Your task to perform on an android device: delete a single message in the gmail app Image 0: 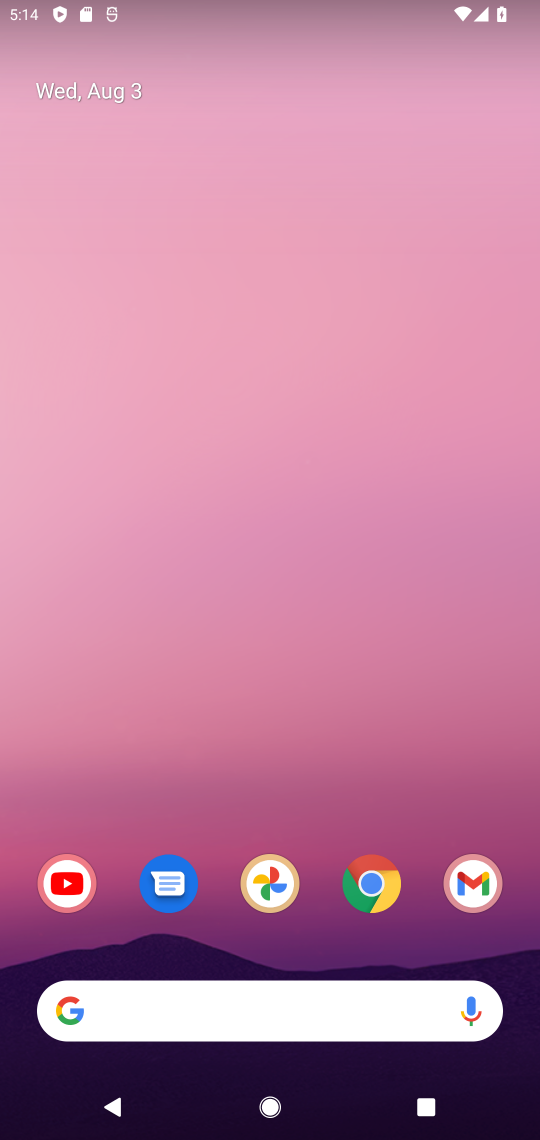
Step 0: drag from (236, 982) to (426, 184)
Your task to perform on an android device: delete a single message in the gmail app Image 1: 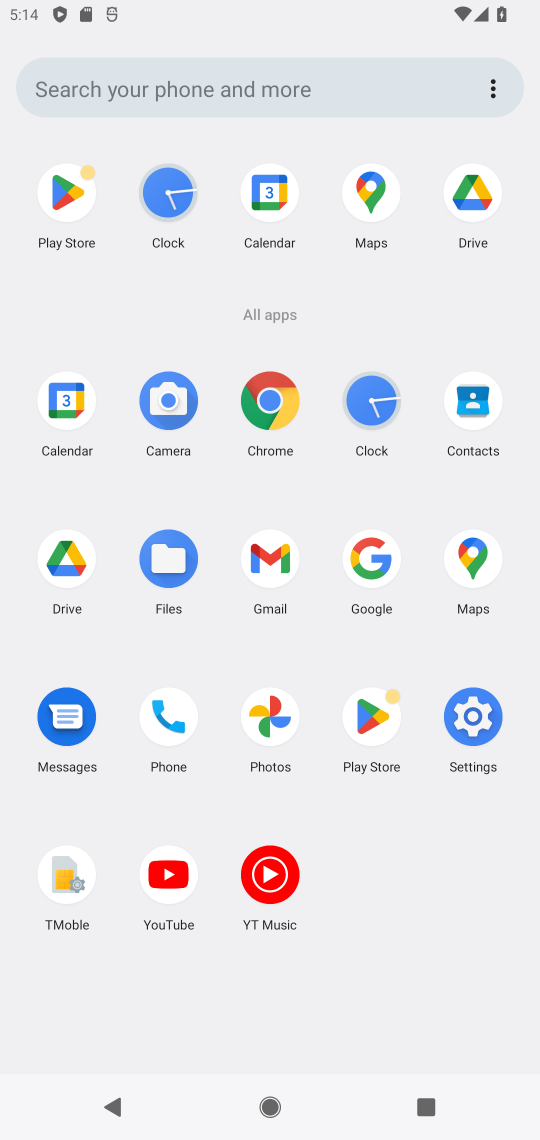
Step 1: click (267, 567)
Your task to perform on an android device: delete a single message in the gmail app Image 2: 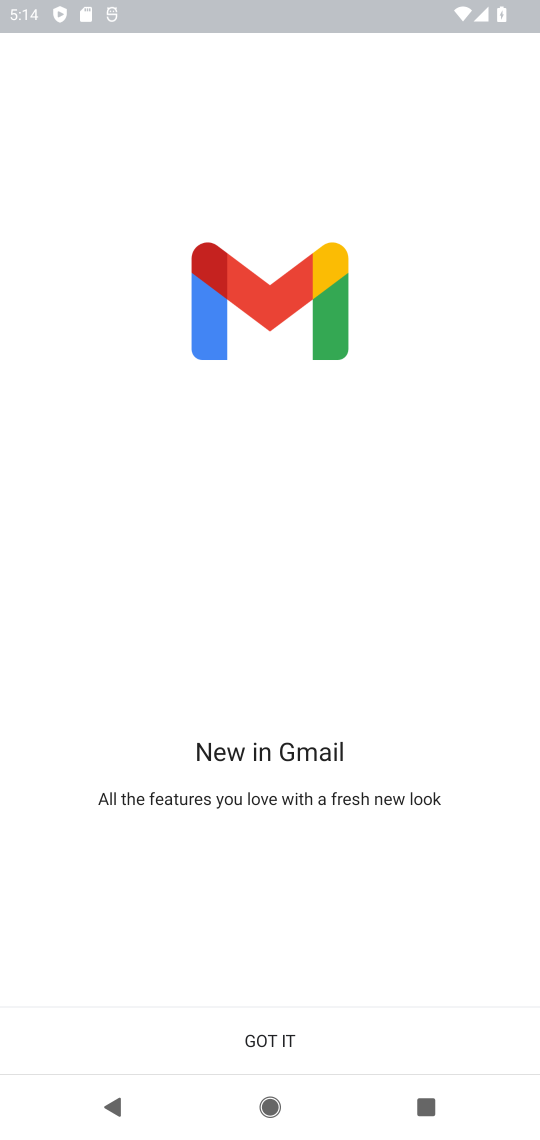
Step 2: click (259, 1045)
Your task to perform on an android device: delete a single message in the gmail app Image 3: 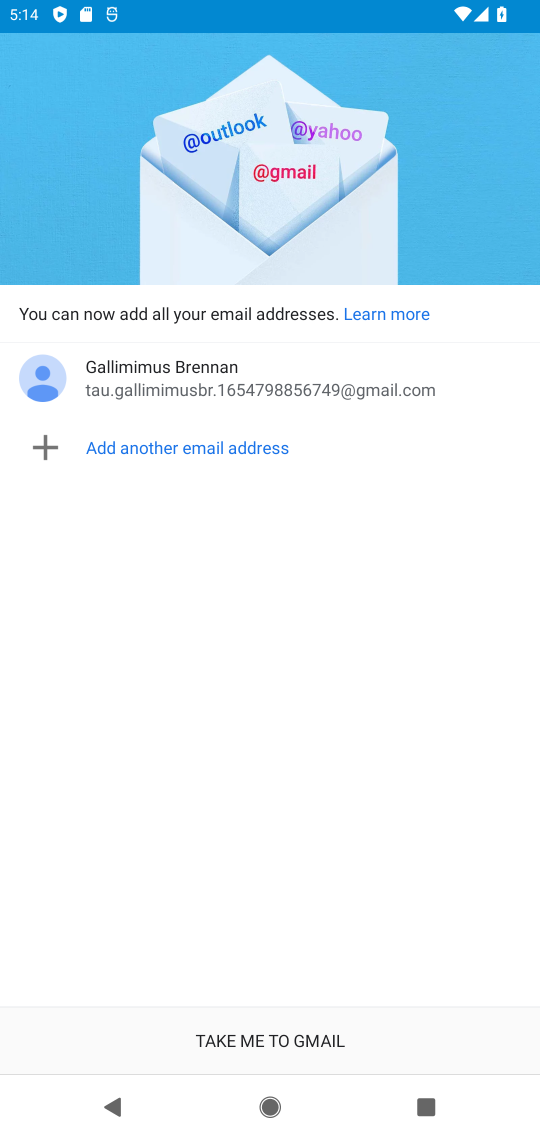
Step 3: click (303, 1035)
Your task to perform on an android device: delete a single message in the gmail app Image 4: 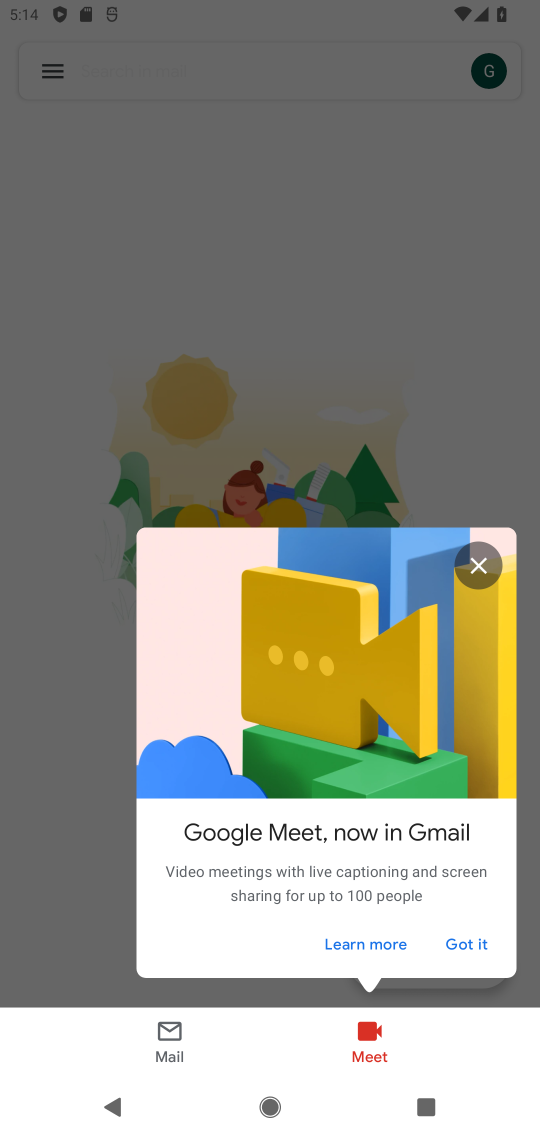
Step 4: click (455, 950)
Your task to perform on an android device: delete a single message in the gmail app Image 5: 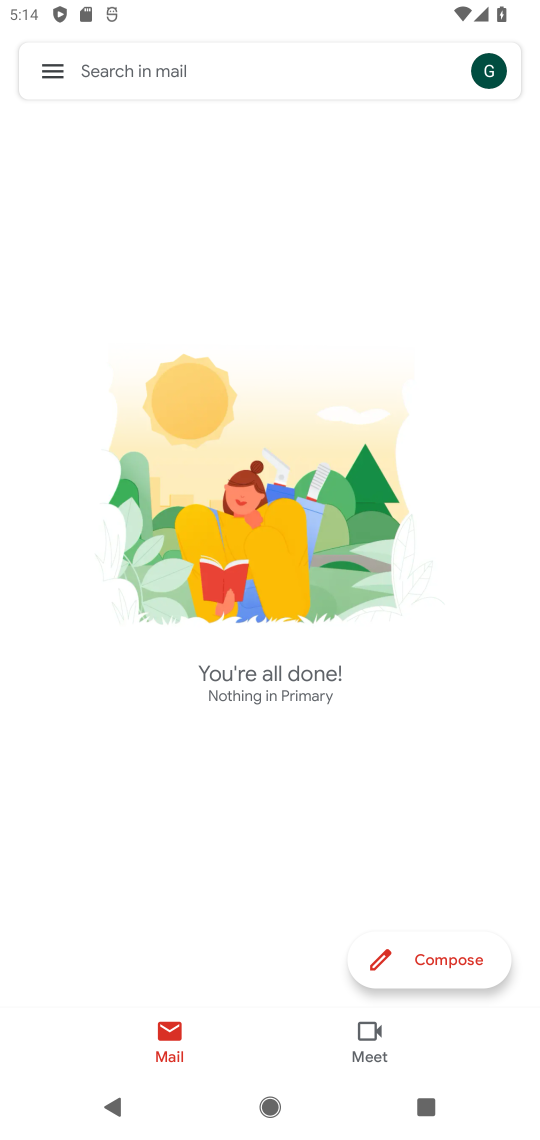
Step 5: task complete